Your task to perform on an android device: Is it going to rain today? Image 0: 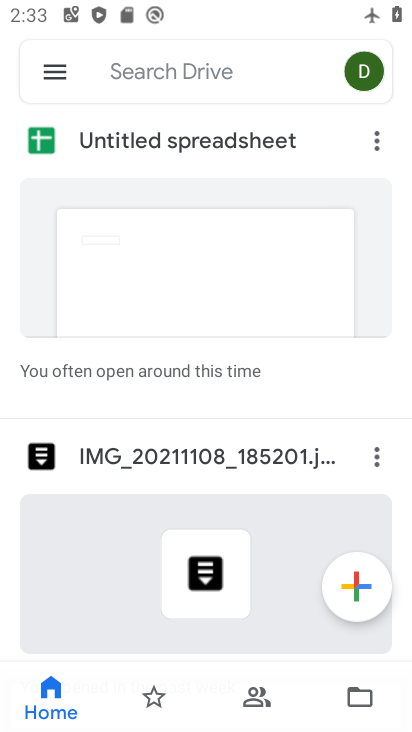
Step 0: press home button
Your task to perform on an android device: Is it going to rain today? Image 1: 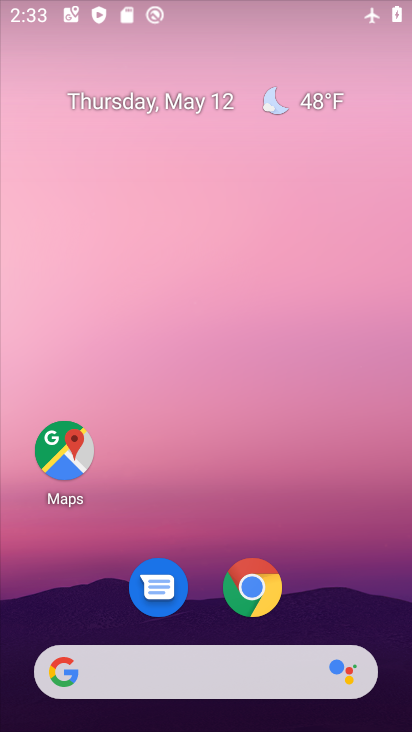
Step 1: drag from (291, 579) to (306, 117)
Your task to perform on an android device: Is it going to rain today? Image 2: 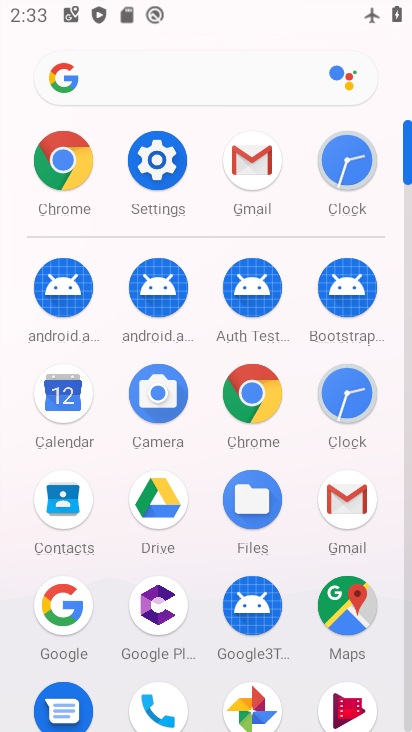
Step 2: click (69, 606)
Your task to perform on an android device: Is it going to rain today? Image 3: 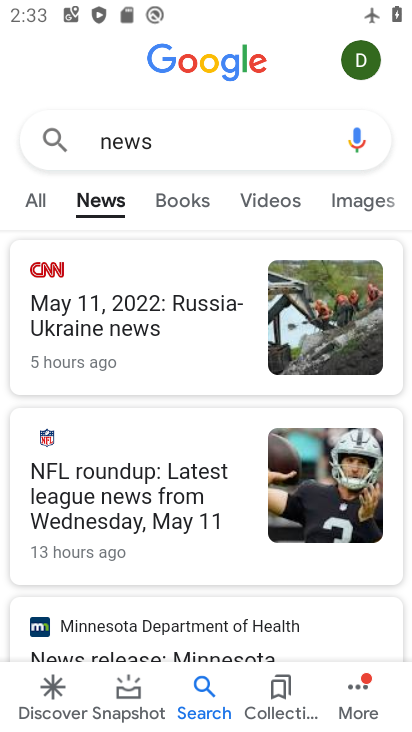
Step 3: click (233, 130)
Your task to perform on an android device: Is it going to rain today? Image 4: 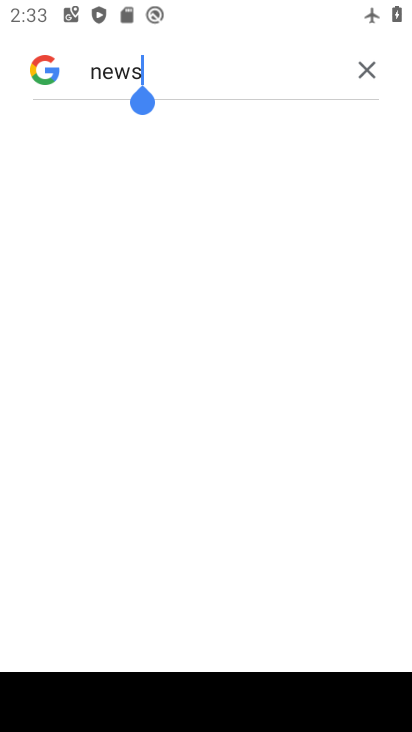
Step 4: click (375, 59)
Your task to perform on an android device: Is it going to rain today? Image 5: 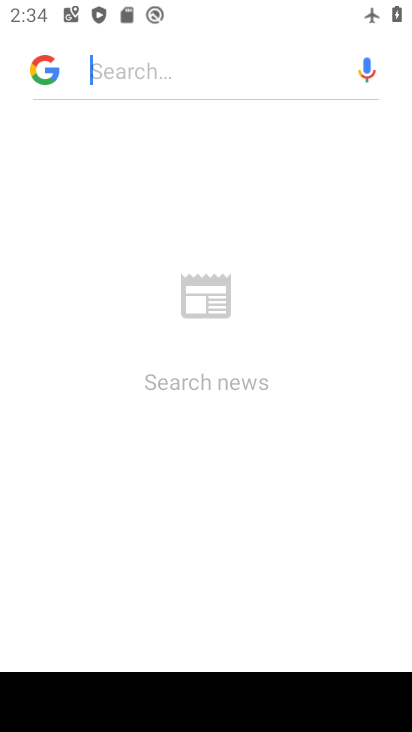
Step 5: type "weather"
Your task to perform on an android device: Is it going to rain today? Image 6: 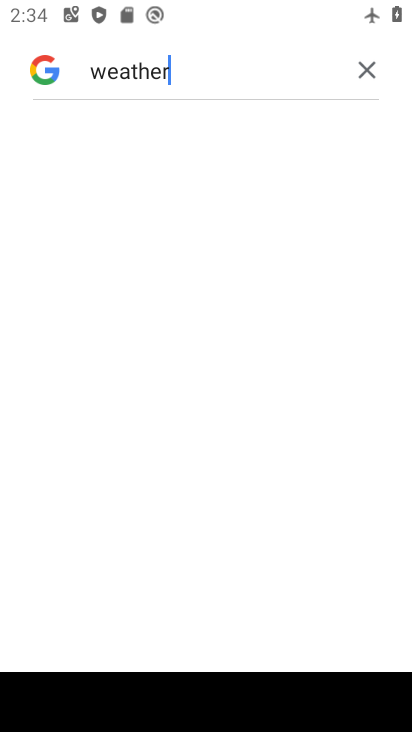
Step 6: task complete